Your task to perform on an android device: Go to battery settings Image 0: 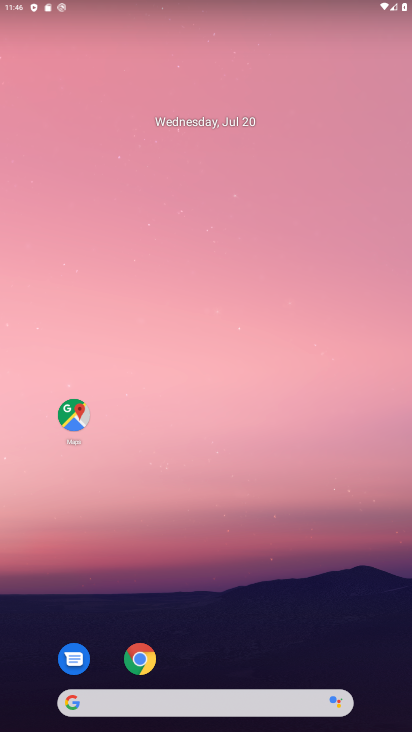
Step 0: drag from (324, 668) to (245, 41)
Your task to perform on an android device: Go to battery settings Image 1: 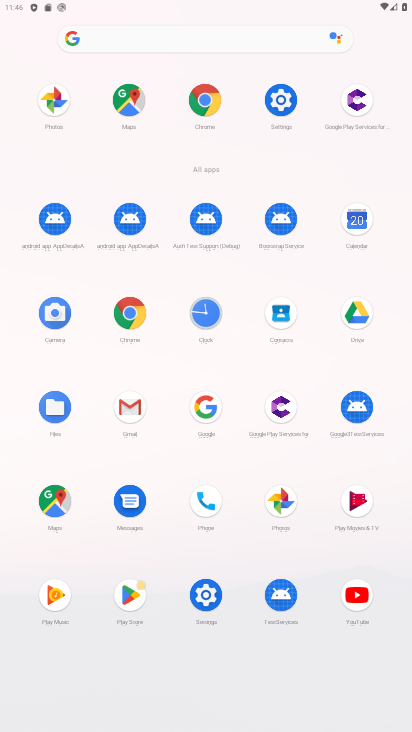
Step 1: click (289, 103)
Your task to perform on an android device: Go to battery settings Image 2: 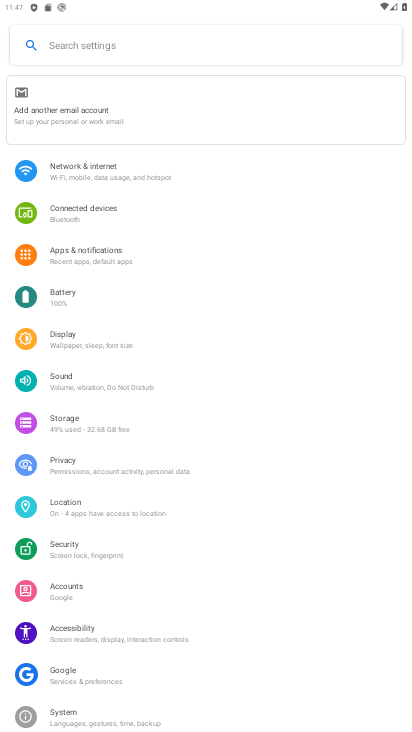
Step 2: click (59, 299)
Your task to perform on an android device: Go to battery settings Image 3: 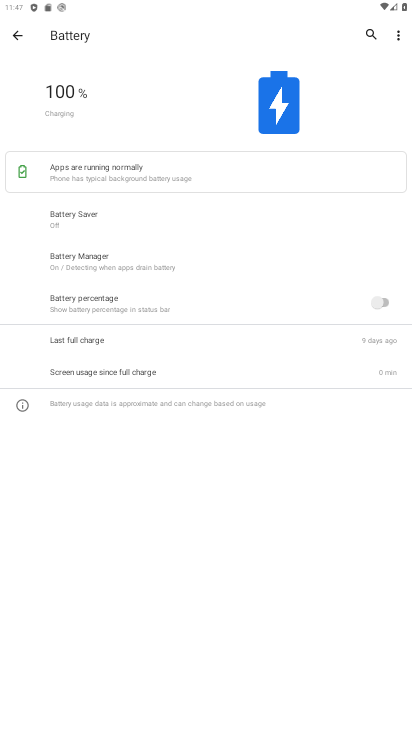
Step 3: task complete